Your task to perform on an android device: Open wifi settings Image 0: 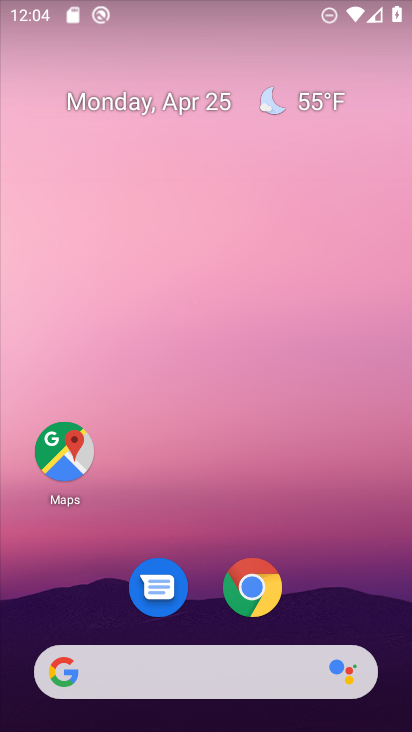
Step 0: drag from (320, 597) to (320, 36)
Your task to perform on an android device: Open wifi settings Image 1: 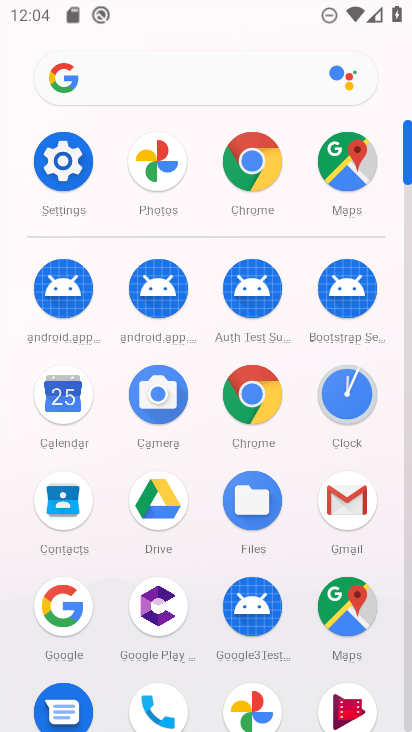
Step 1: click (52, 162)
Your task to perform on an android device: Open wifi settings Image 2: 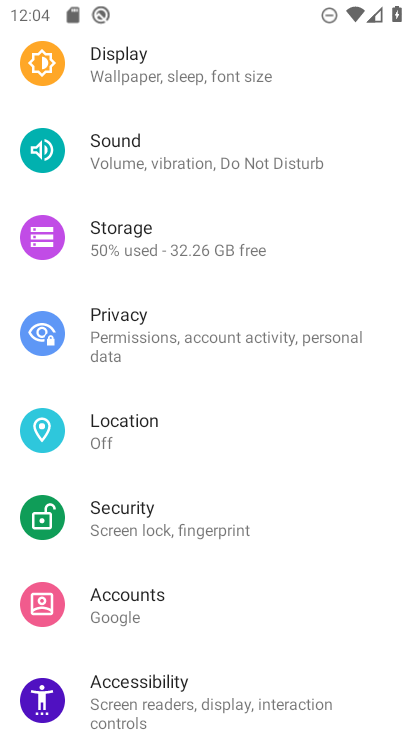
Step 2: drag from (222, 140) to (245, 640)
Your task to perform on an android device: Open wifi settings Image 3: 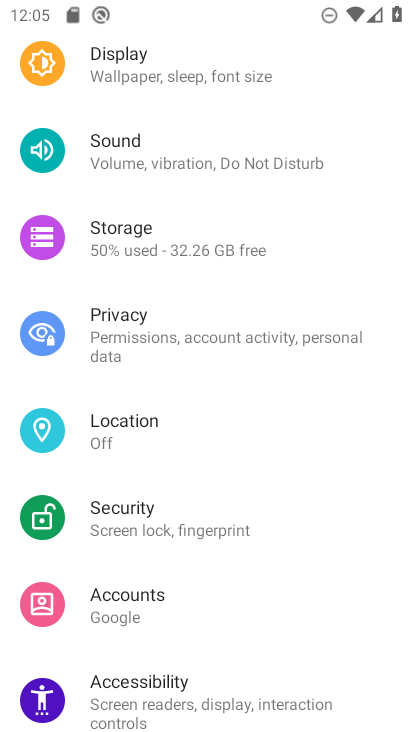
Step 3: drag from (228, 133) to (242, 633)
Your task to perform on an android device: Open wifi settings Image 4: 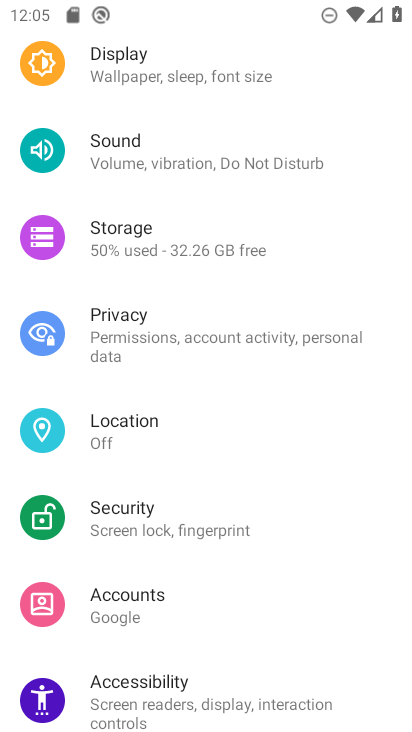
Step 4: drag from (266, 205) to (235, 582)
Your task to perform on an android device: Open wifi settings Image 5: 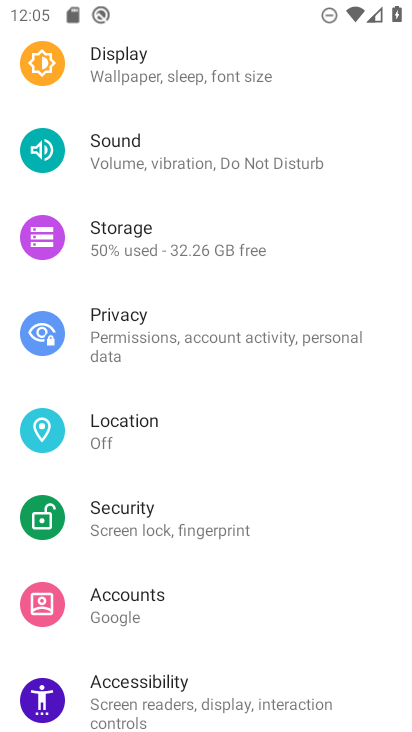
Step 5: drag from (227, 131) to (285, 544)
Your task to perform on an android device: Open wifi settings Image 6: 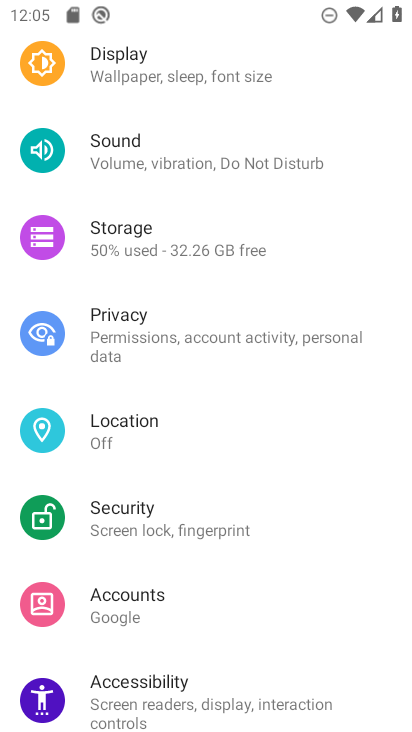
Step 6: drag from (171, 436) to (222, 1)
Your task to perform on an android device: Open wifi settings Image 7: 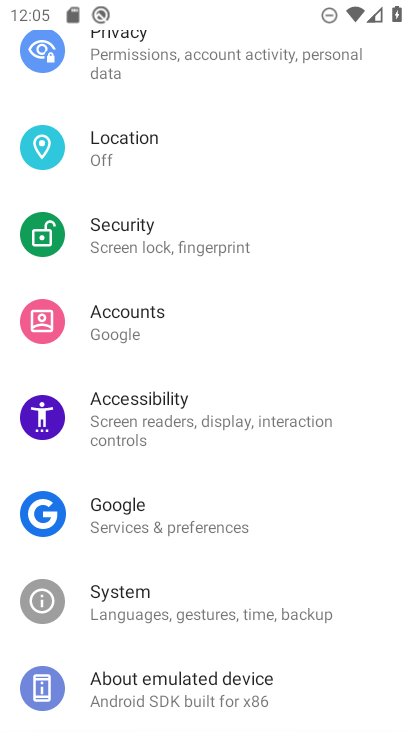
Step 7: drag from (222, 111) to (254, 519)
Your task to perform on an android device: Open wifi settings Image 8: 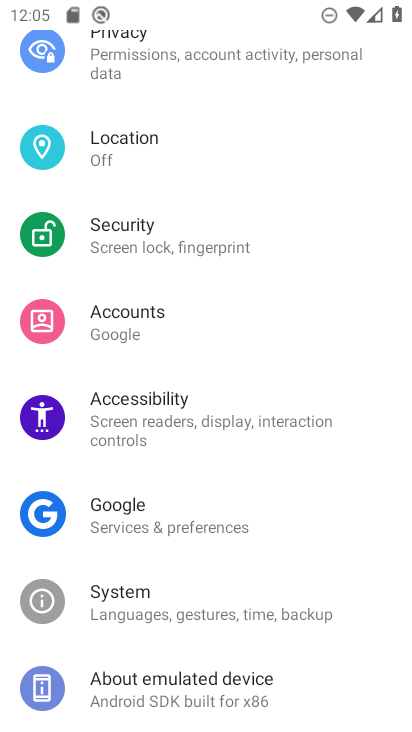
Step 8: drag from (274, 119) to (272, 731)
Your task to perform on an android device: Open wifi settings Image 9: 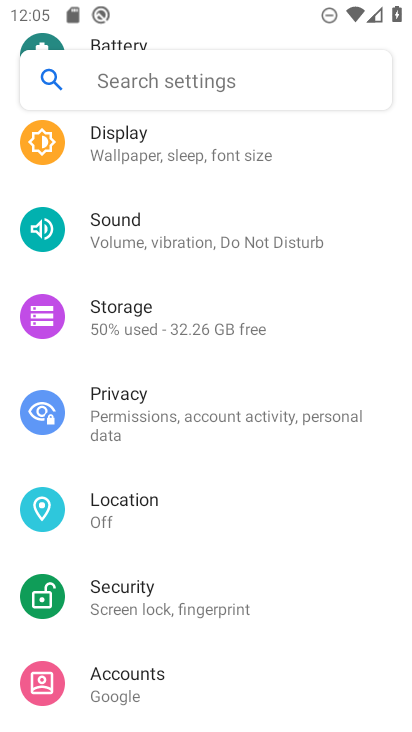
Step 9: drag from (190, 236) to (206, 632)
Your task to perform on an android device: Open wifi settings Image 10: 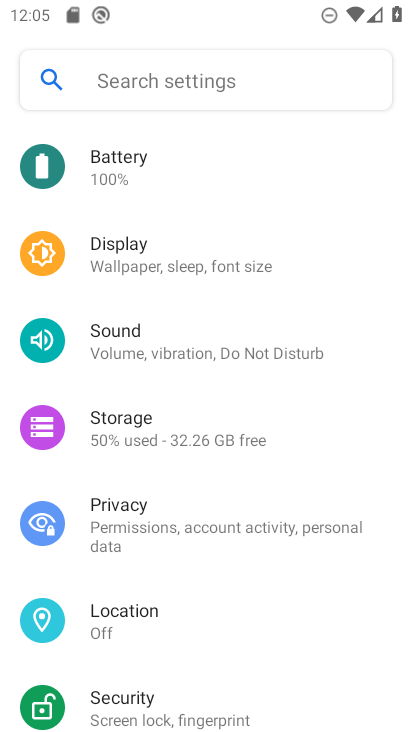
Step 10: drag from (152, 249) to (179, 676)
Your task to perform on an android device: Open wifi settings Image 11: 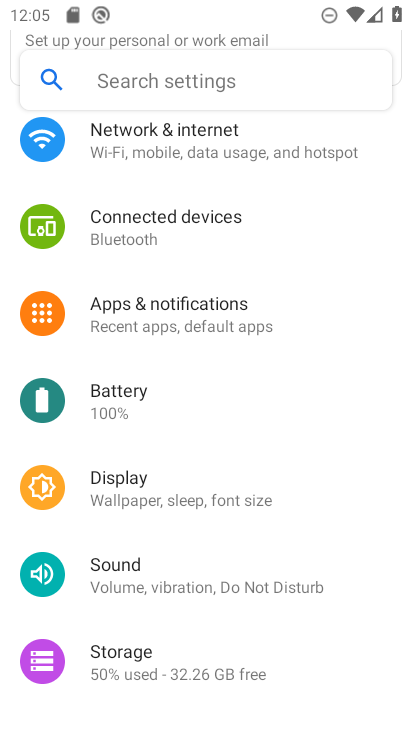
Step 11: click (194, 157)
Your task to perform on an android device: Open wifi settings Image 12: 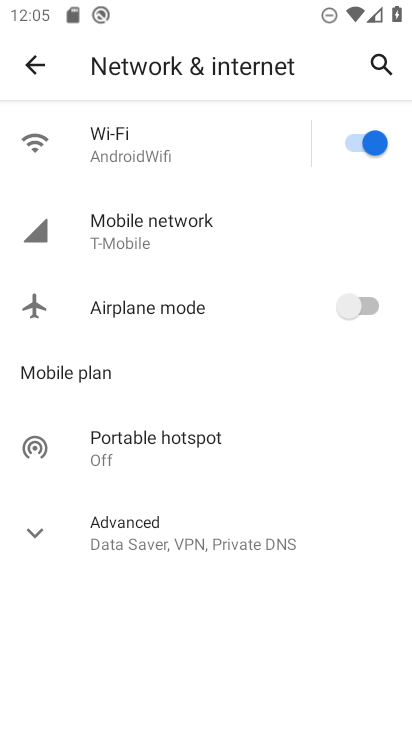
Step 12: click (195, 138)
Your task to perform on an android device: Open wifi settings Image 13: 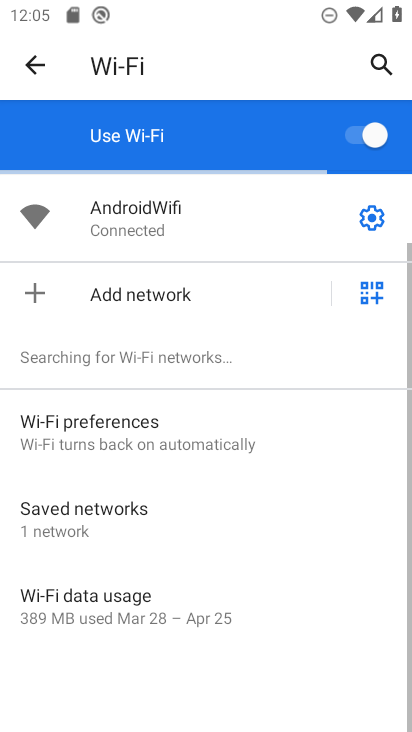
Step 13: click (375, 228)
Your task to perform on an android device: Open wifi settings Image 14: 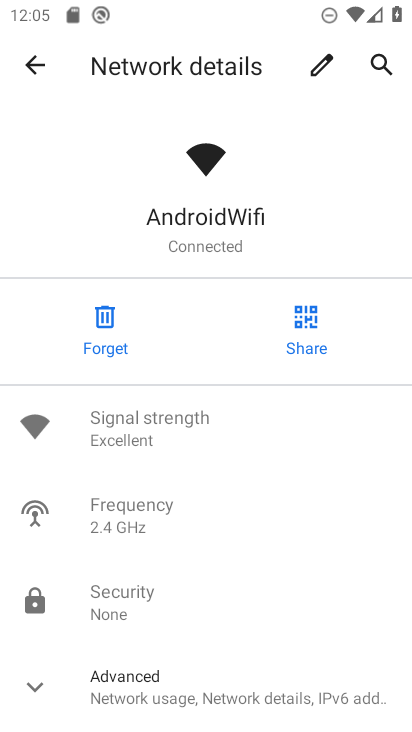
Step 14: task complete